Your task to perform on an android device: What is the capital of Argentina? Image 0: 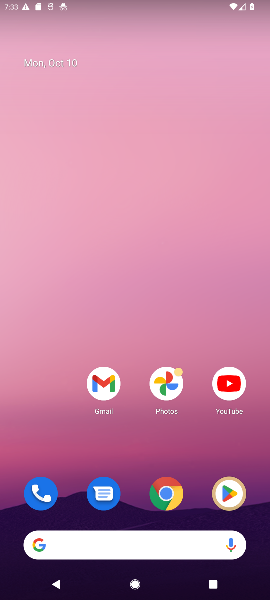
Step 0: click (120, 539)
Your task to perform on an android device: What is the capital of Argentina? Image 1: 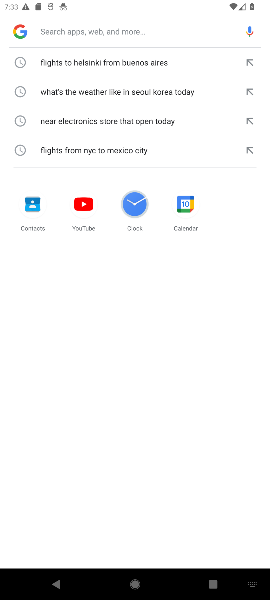
Step 1: type "What is the capital of Argentina?"
Your task to perform on an android device: What is the capital of Argentina? Image 2: 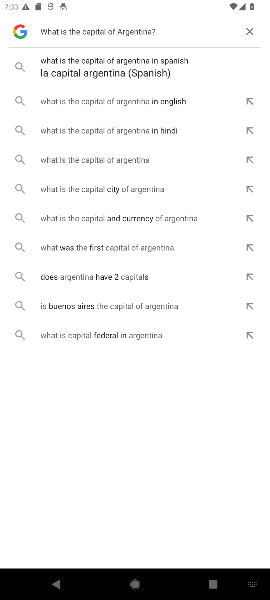
Step 2: click (112, 74)
Your task to perform on an android device: What is the capital of Argentina? Image 3: 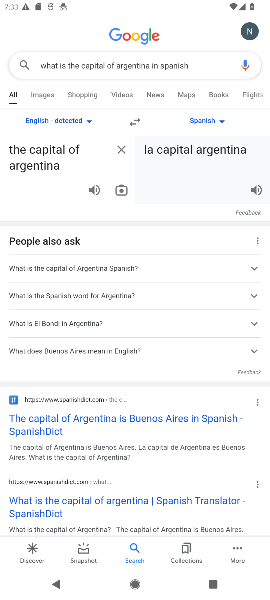
Step 3: task complete